Your task to perform on an android device: Look up the best selling patio furniture on Home Depot Image 0: 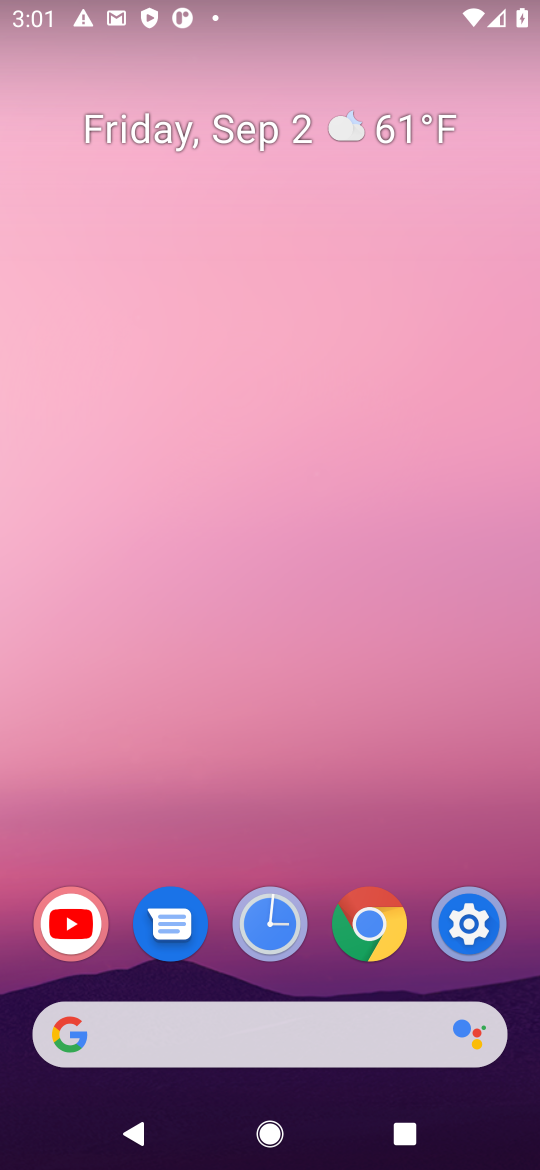
Step 0: click (363, 1035)
Your task to perform on an android device: Look up the best selling patio furniture on Home Depot Image 1: 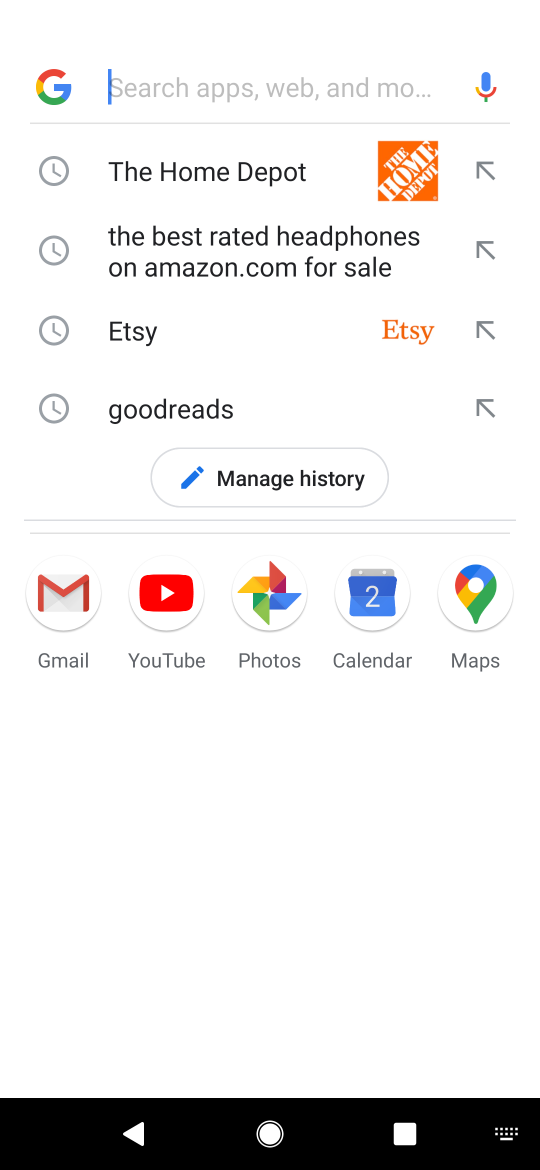
Step 1: press enter
Your task to perform on an android device: Look up the best selling patio furniture on Home Depot Image 2: 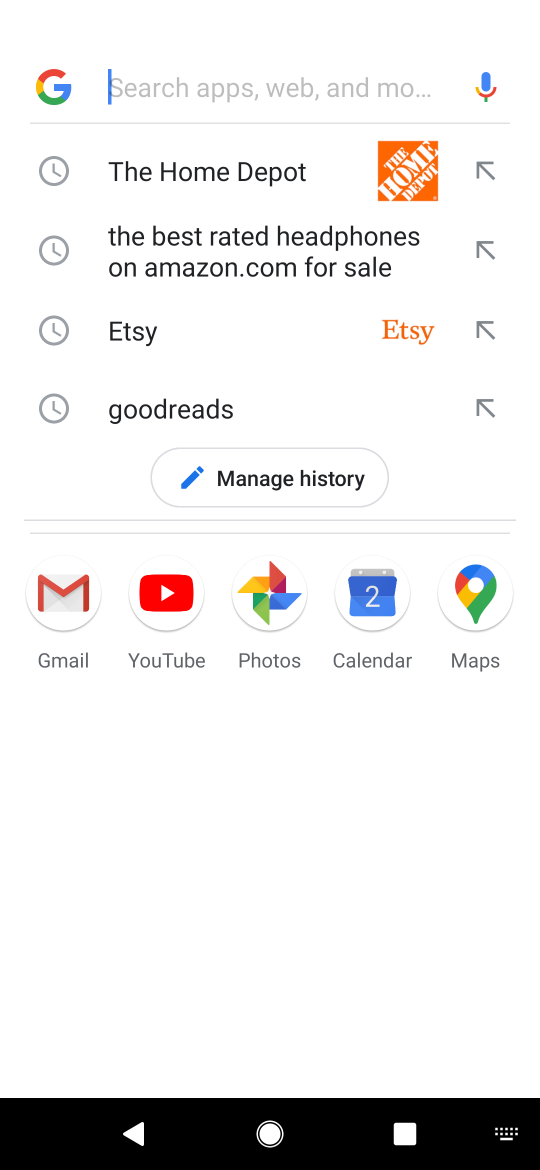
Step 2: type "home depot"
Your task to perform on an android device: Look up the best selling patio furniture on Home Depot Image 3: 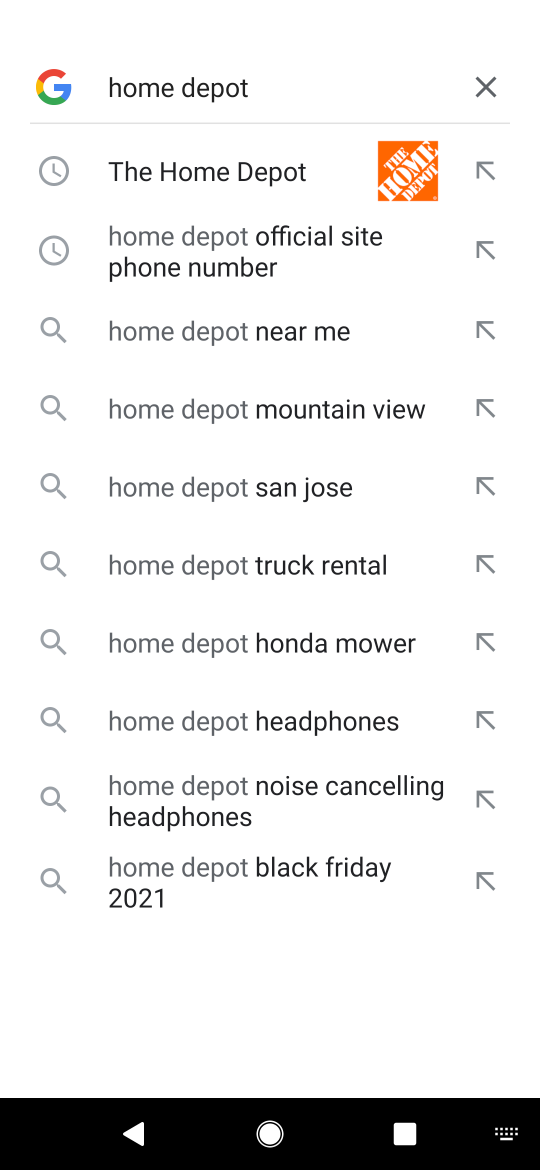
Step 3: click (286, 177)
Your task to perform on an android device: Look up the best selling patio furniture on Home Depot Image 4: 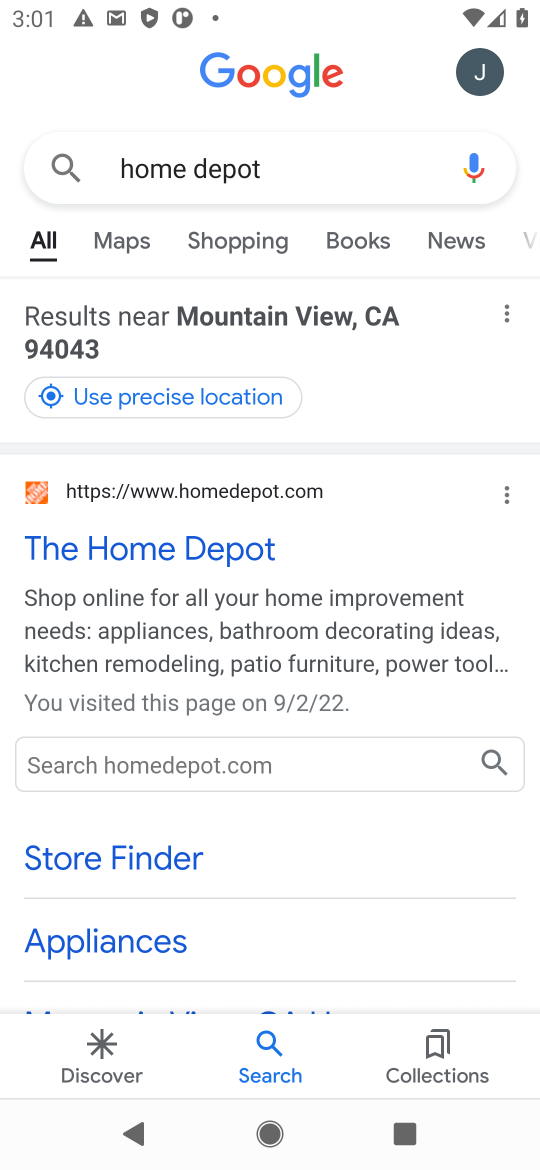
Step 4: click (263, 554)
Your task to perform on an android device: Look up the best selling patio furniture on Home Depot Image 5: 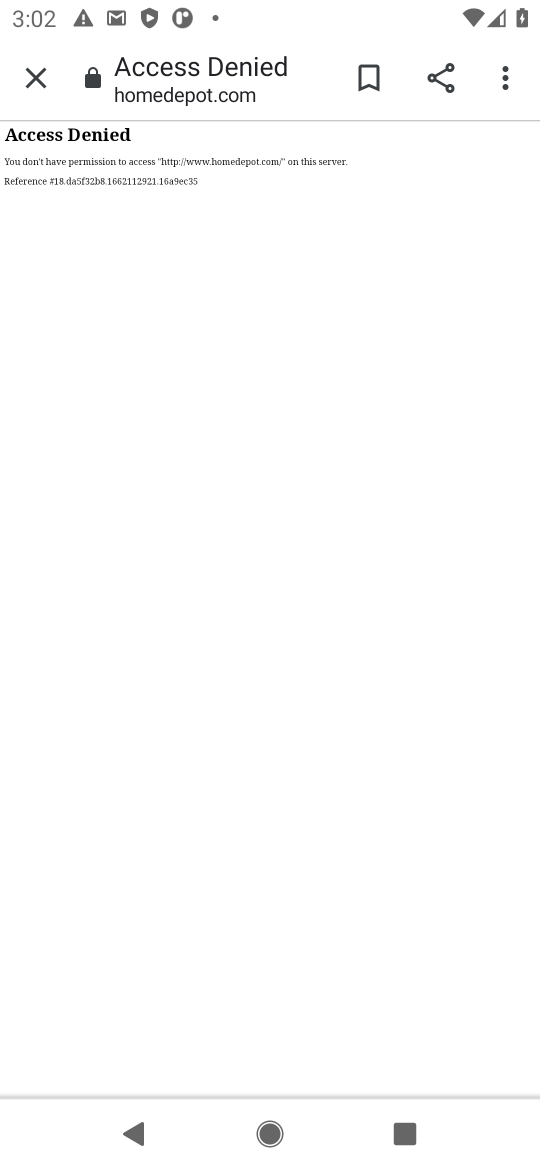
Step 5: task complete